Your task to perform on an android device: turn on the 12-hour format for clock Image 0: 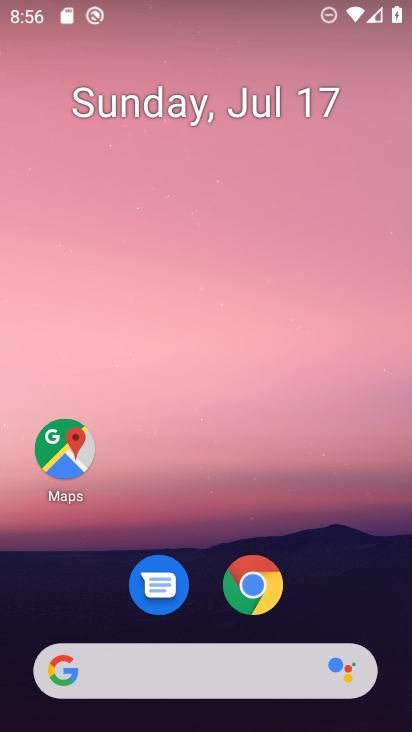
Step 0: drag from (204, 683) to (279, 125)
Your task to perform on an android device: turn on the 12-hour format for clock Image 1: 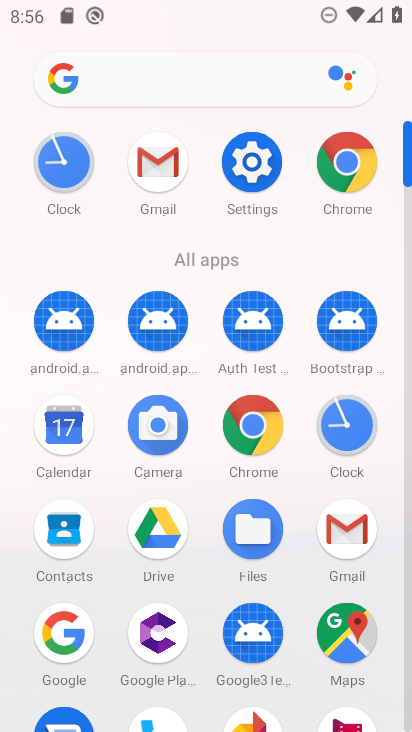
Step 1: click (343, 466)
Your task to perform on an android device: turn on the 12-hour format for clock Image 2: 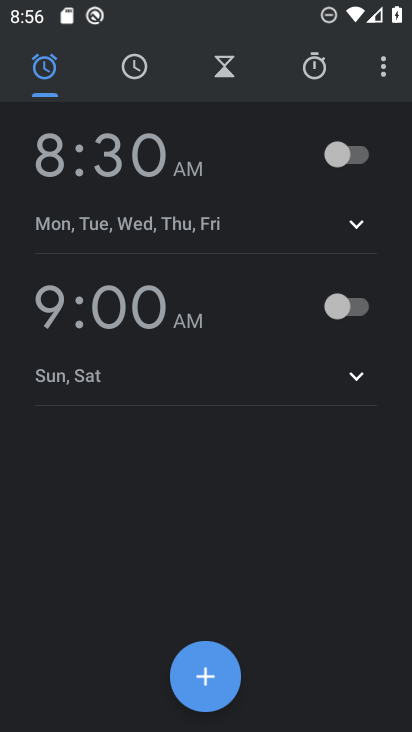
Step 2: click (374, 76)
Your task to perform on an android device: turn on the 12-hour format for clock Image 3: 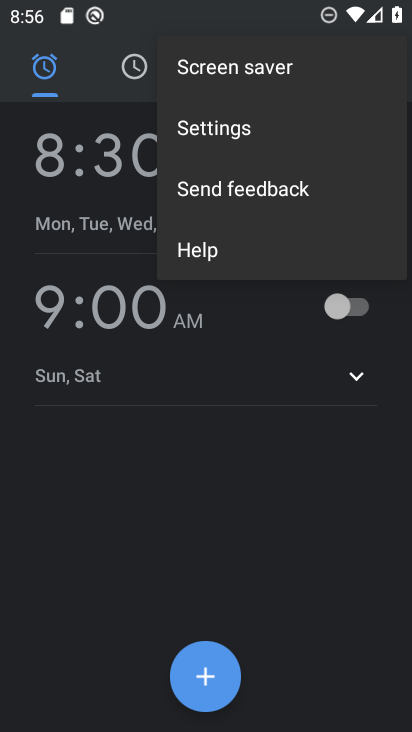
Step 3: click (229, 133)
Your task to perform on an android device: turn on the 12-hour format for clock Image 4: 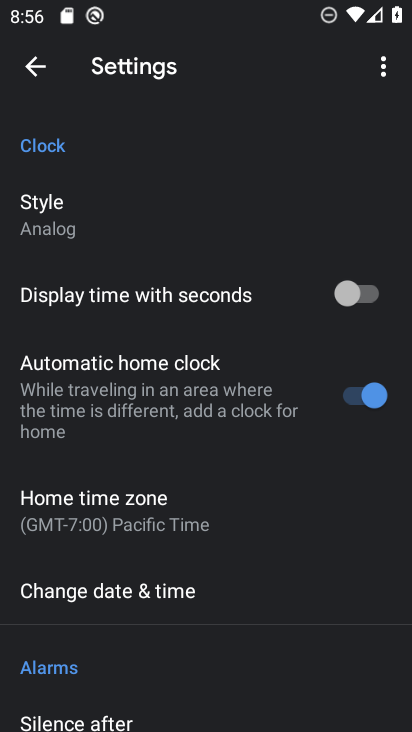
Step 4: drag from (289, 531) to (347, 119)
Your task to perform on an android device: turn on the 12-hour format for clock Image 5: 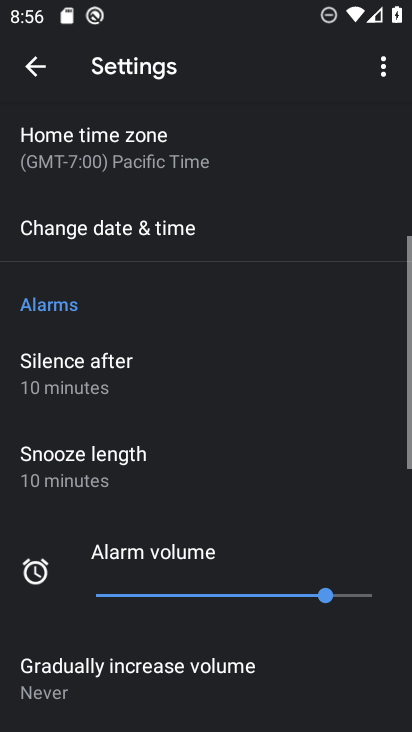
Step 5: click (174, 234)
Your task to perform on an android device: turn on the 12-hour format for clock Image 6: 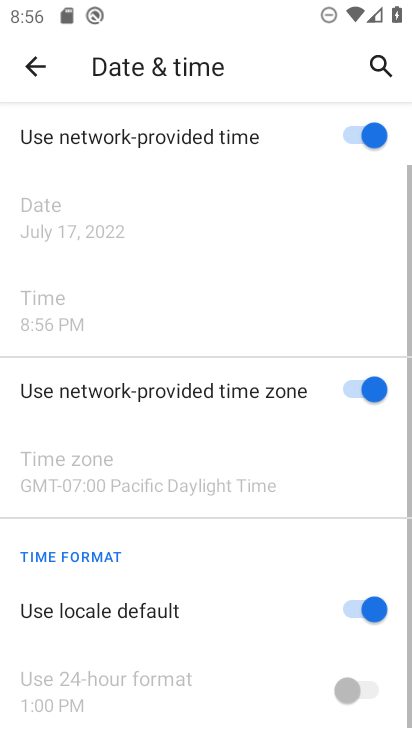
Step 6: task complete